Your task to perform on an android device: change text size in settings app Image 0: 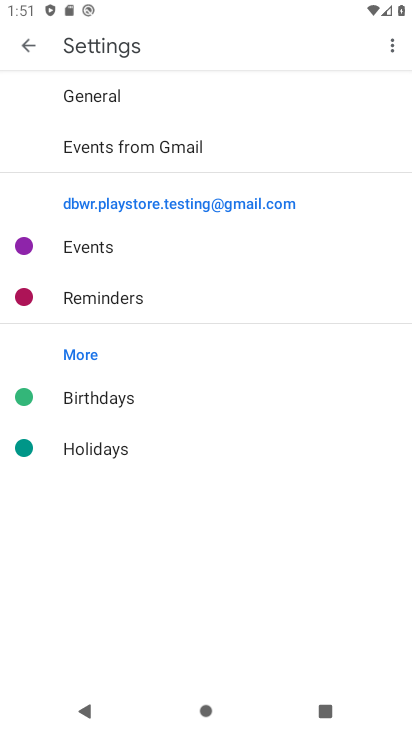
Step 0: press home button
Your task to perform on an android device: change text size in settings app Image 1: 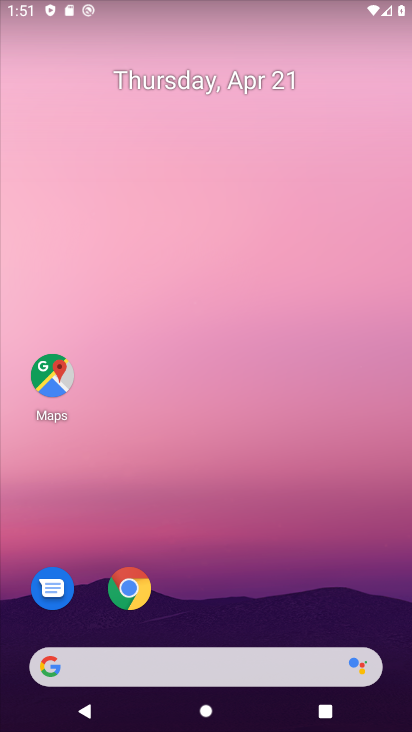
Step 1: drag from (209, 628) to (160, 25)
Your task to perform on an android device: change text size in settings app Image 2: 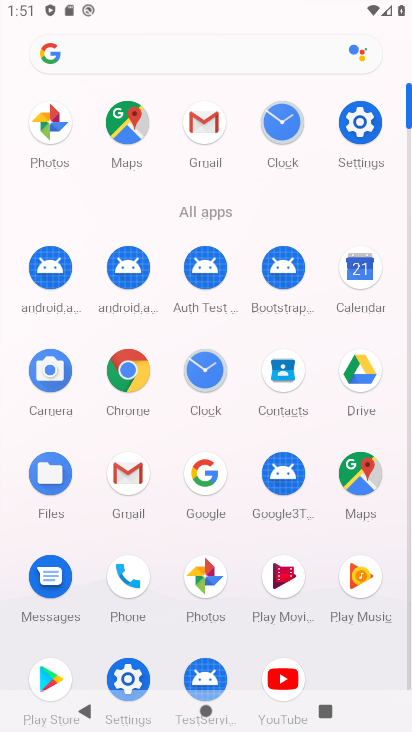
Step 2: click (368, 130)
Your task to perform on an android device: change text size in settings app Image 3: 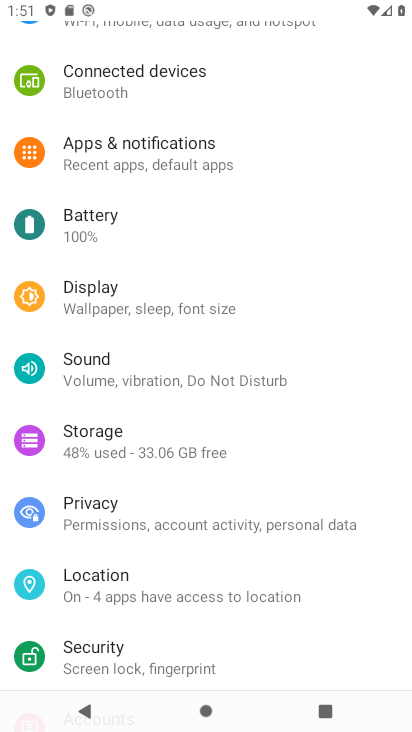
Step 3: click (205, 317)
Your task to perform on an android device: change text size in settings app Image 4: 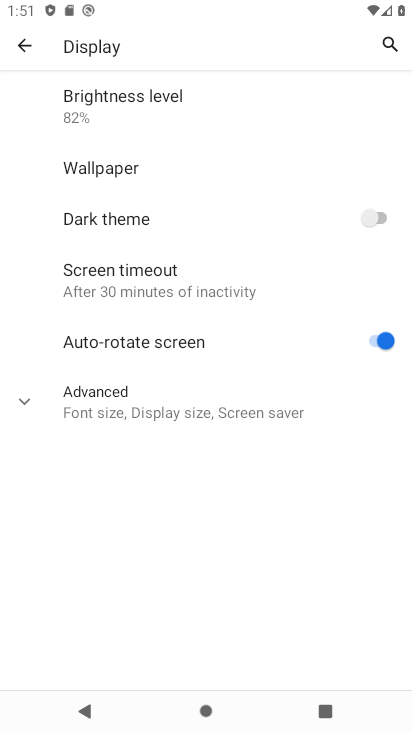
Step 4: click (129, 405)
Your task to perform on an android device: change text size in settings app Image 5: 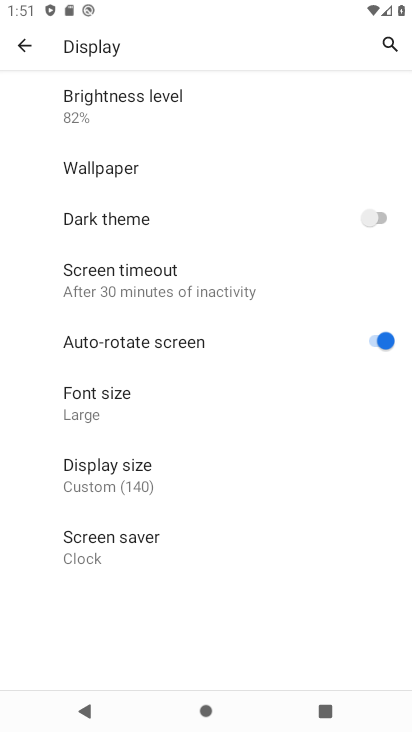
Step 5: click (125, 387)
Your task to perform on an android device: change text size in settings app Image 6: 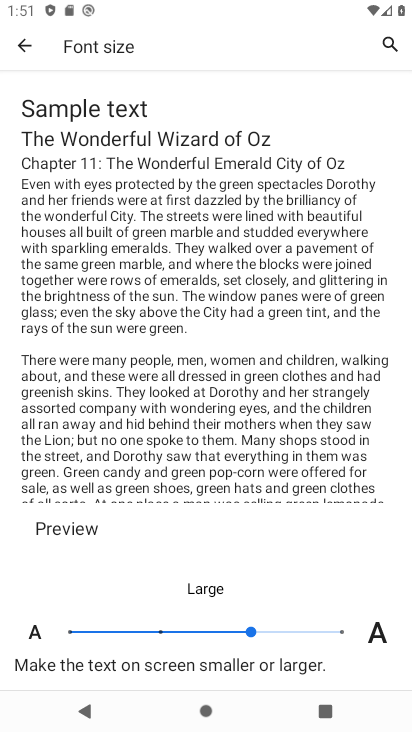
Step 6: click (343, 627)
Your task to perform on an android device: change text size in settings app Image 7: 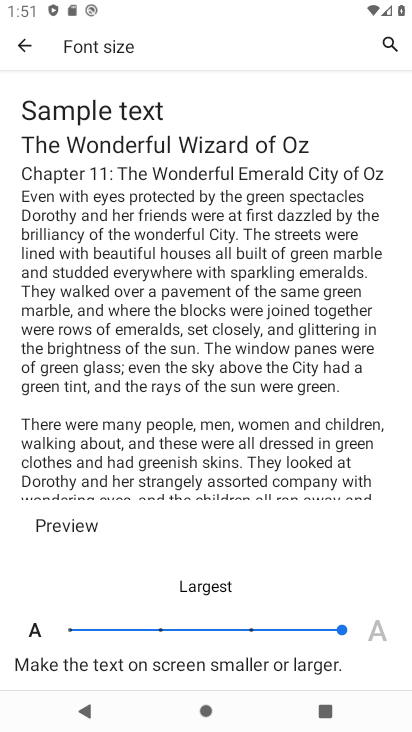
Step 7: task complete